Your task to perform on an android device: change keyboard looks Image 0: 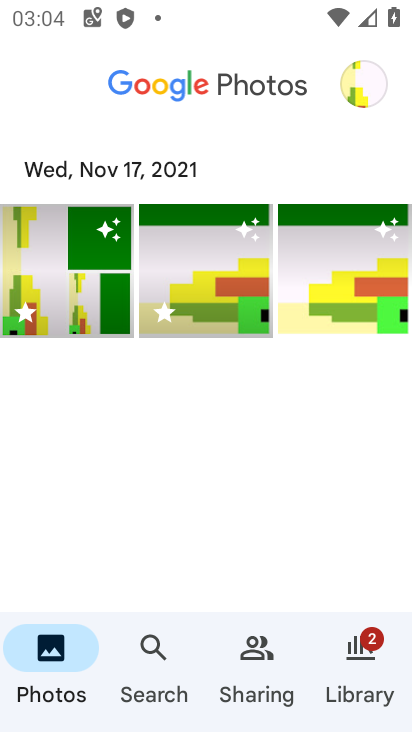
Step 0: press home button
Your task to perform on an android device: change keyboard looks Image 1: 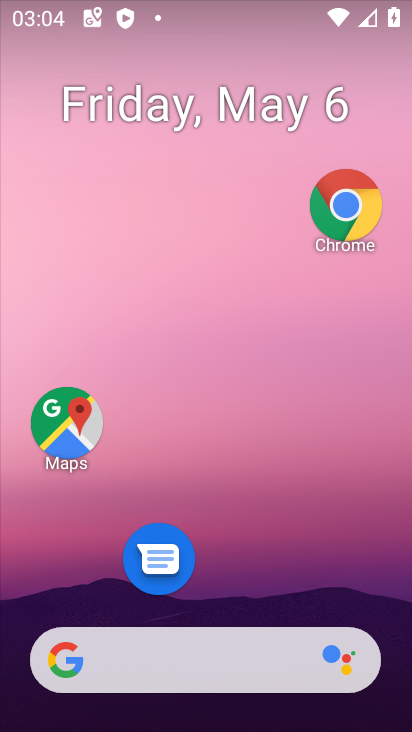
Step 1: drag from (168, 660) to (246, 155)
Your task to perform on an android device: change keyboard looks Image 2: 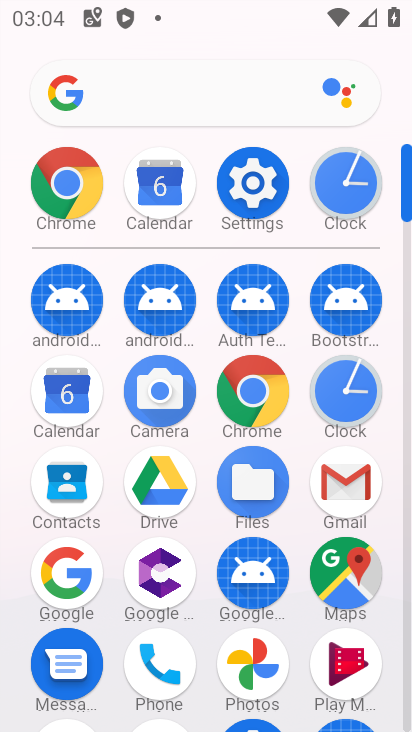
Step 2: click (251, 192)
Your task to perform on an android device: change keyboard looks Image 3: 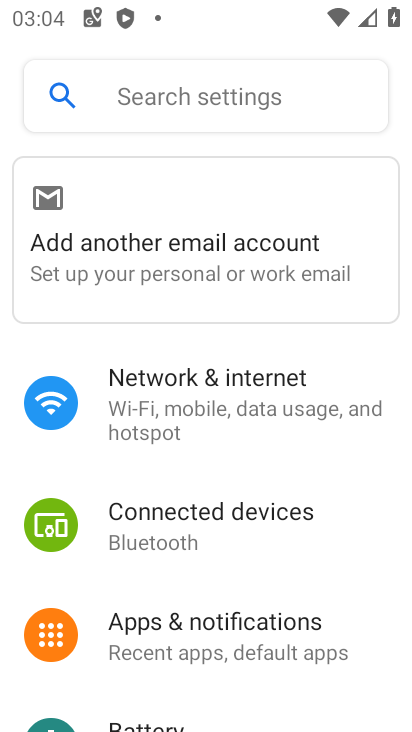
Step 3: drag from (217, 683) to (368, 134)
Your task to perform on an android device: change keyboard looks Image 4: 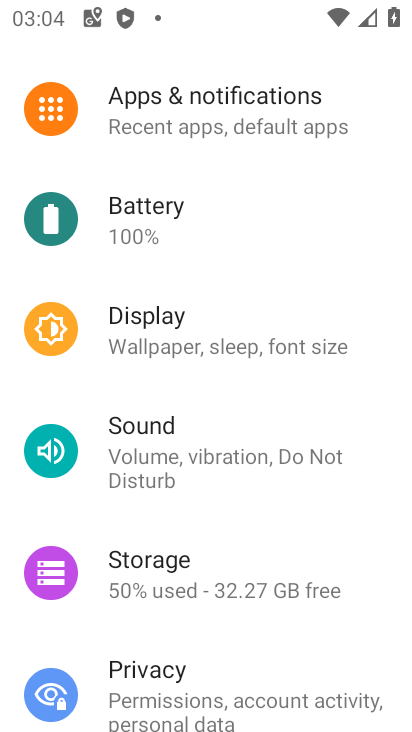
Step 4: drag from (224, 622) to (320, 168)
Your task to perform on an android device: change keyboard looks Image 5: 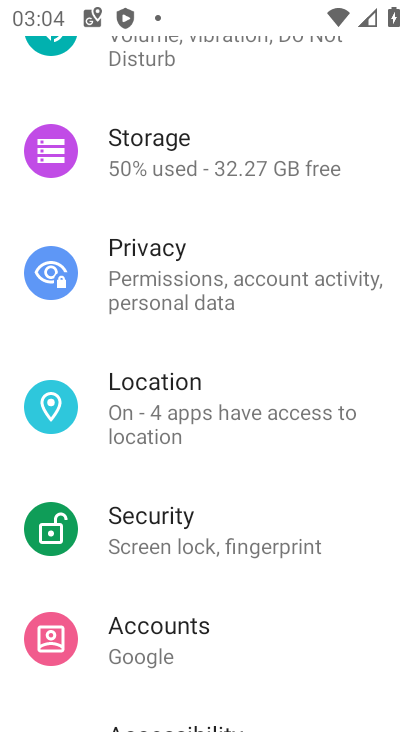
Step 5: drag from (270, 581) to (342, 67)
Your task to perform on an android device: change keyboard looks Image 6: 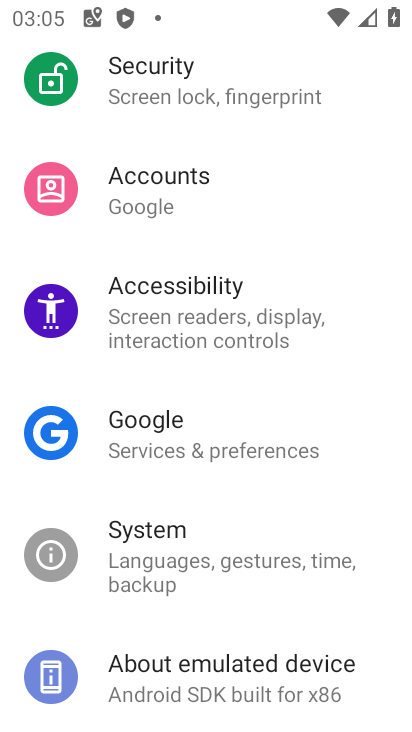
Step 6: click (199, 550)
Your task to perform on an android device: change keyboard looks Image 7: 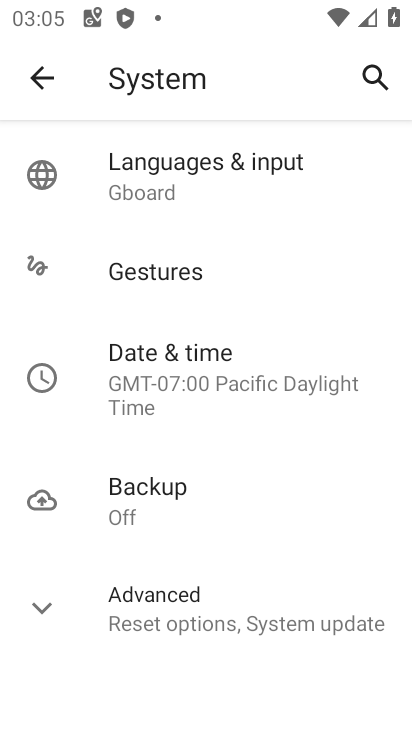
Step 7: click (161, 165)
Your task to perform on an android device: change keyboard looks Image 8: 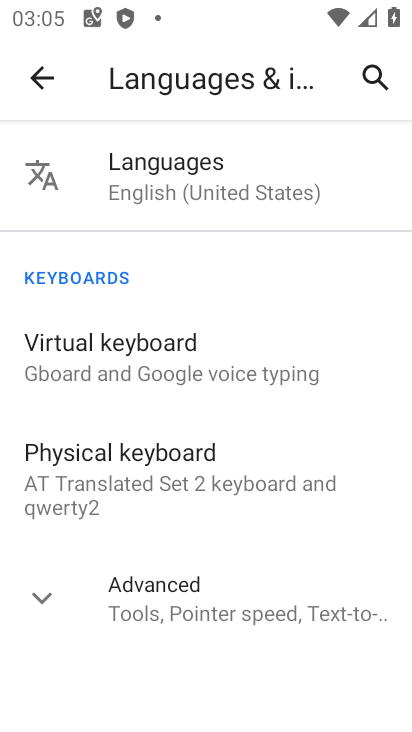
Step 8: click (135, 351)
Your task to perform on an android device: change keyboard looks Image 9: 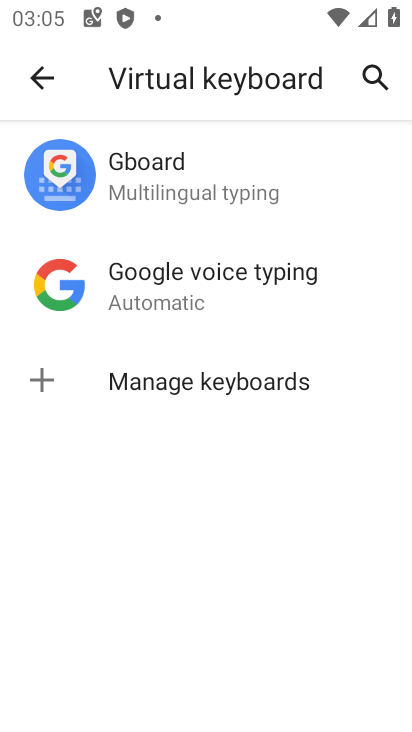
Step 9: click (149, 170)
Your task to perform on an android device: change keyboard looks Image 10: 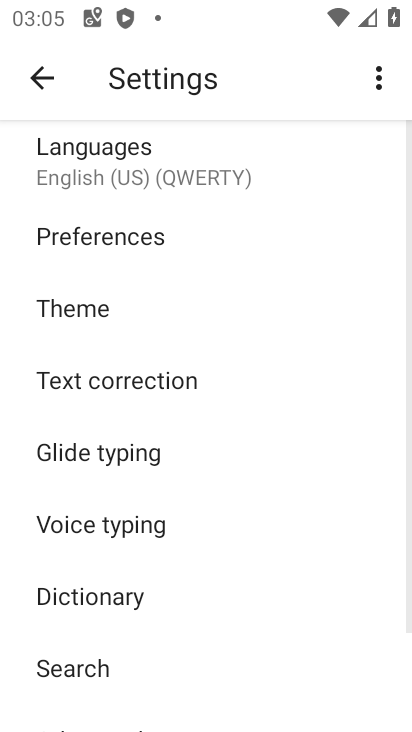
Step 10: click (72, 319)
Your task to perform on an android device: change keyboard looks Image 11: 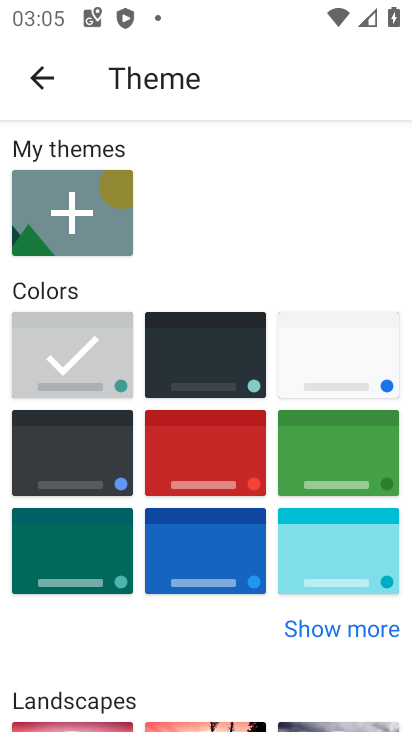
Step 11: click (185, 448)
Your task to perform on an android device: change keyboard looks Image 12: 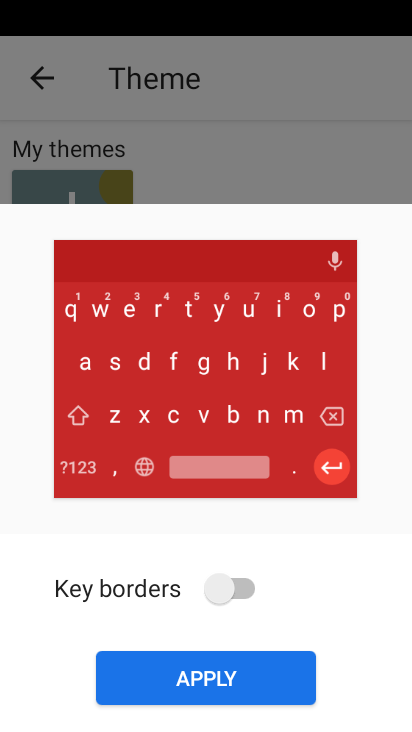
Step 12: click (210, 687)
Your task to perform on an android device: change keyboard looks Image 13: 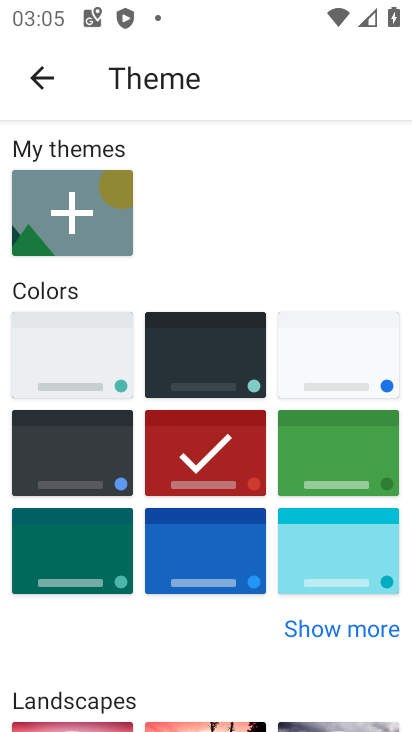
Step 13: task complete